Your task to perform on an android device: What's on my calendar tomorrow? Image 0: 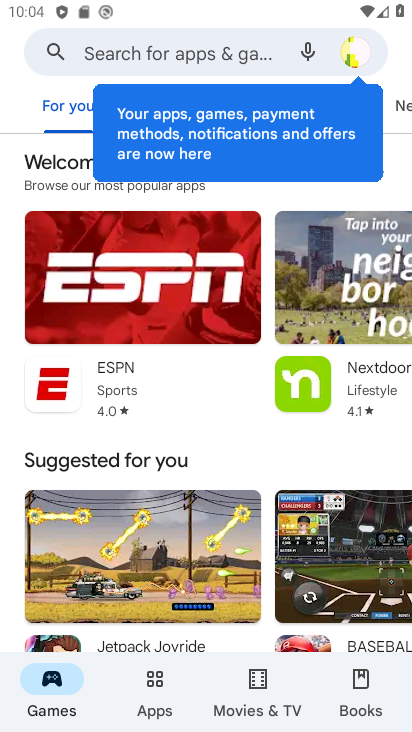
Step 0: task complete